Your task to perform on an android device: turn on notifications settings in the gmail app Image 0: 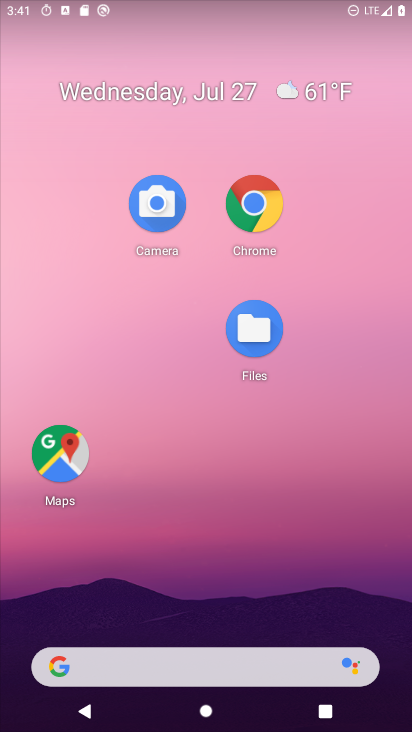
Step 0: drag from (185, 600) to (230, 228)
Your task to perform on an android device: turn on notifications settings in the gmail app Image 1: 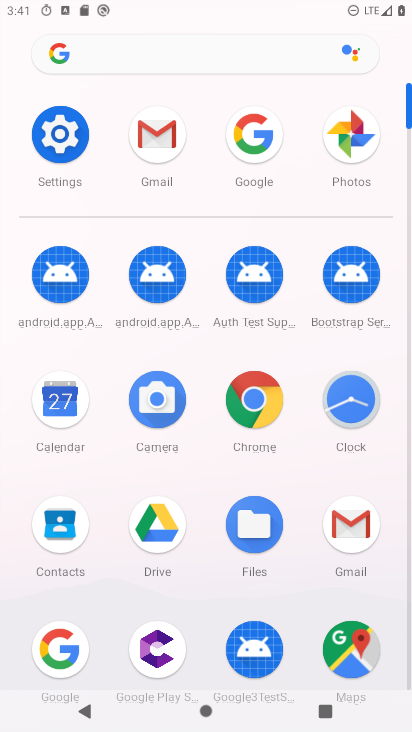
Step 1: click (184, 134)
Your task to perform on an android device: turn on notifications settings in the gmail app Image 2: 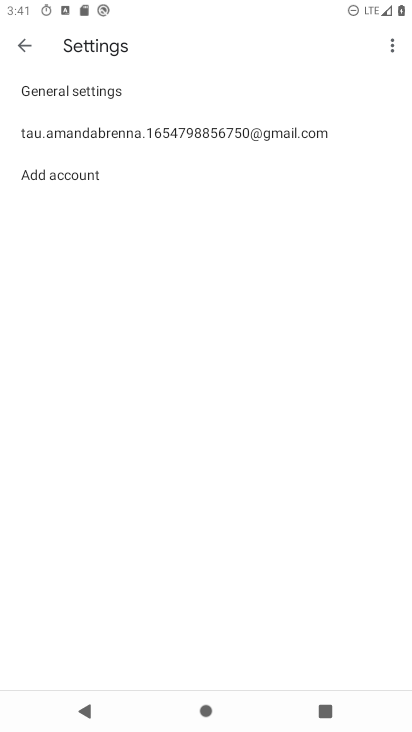
Step 2: click (88, 126)
Your task to perform on an android device: turn on notifications settings in the gmail app Image 3: 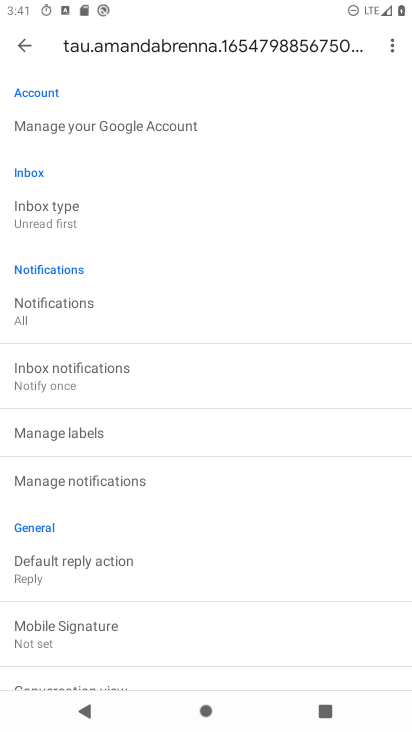
Step 3: click (104, 486)
Your task to perform on an android device: turn on notifications settings in the gmail app Image 4: 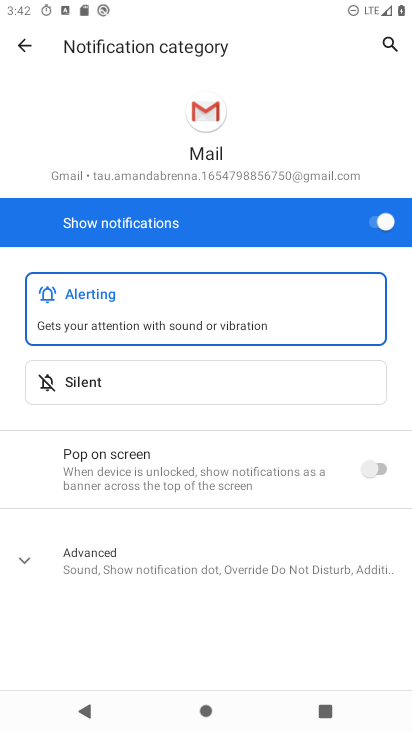
Step 4: task complete